Your task to perform on an android device: Open location settings Image 0: 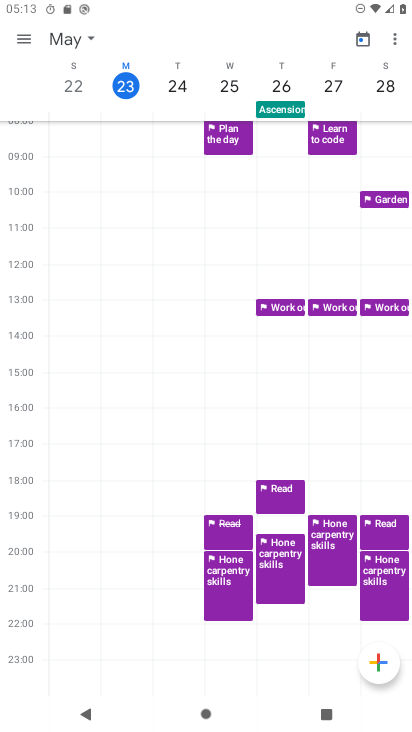
Step 0: press home button
Your task to perform on an android device: Open location settings Image 1: 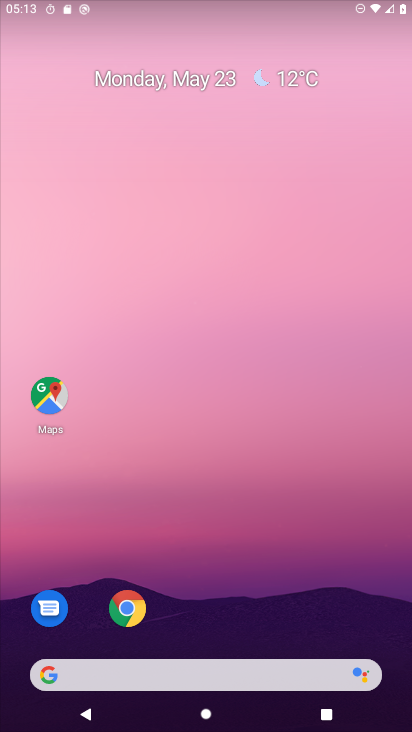
Step 1: drag from (292, 540) to (183, 6)
Your task to perform on an android device: Open location settings Image 2: 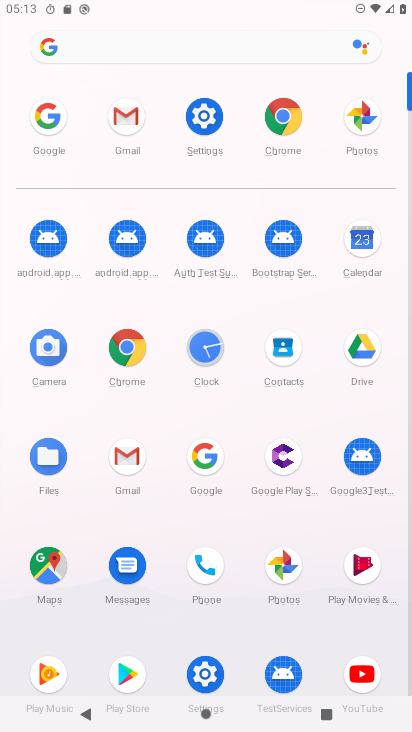
Step 2: click (188, 124)
Your task to perform on an android device: Open location settings Image 3: 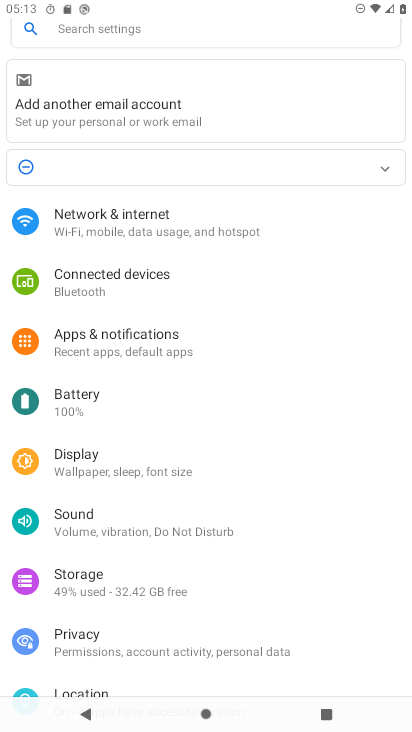
Step 3: click (199, 681)
Your task to perform on an android device: Open location settings Image 4: 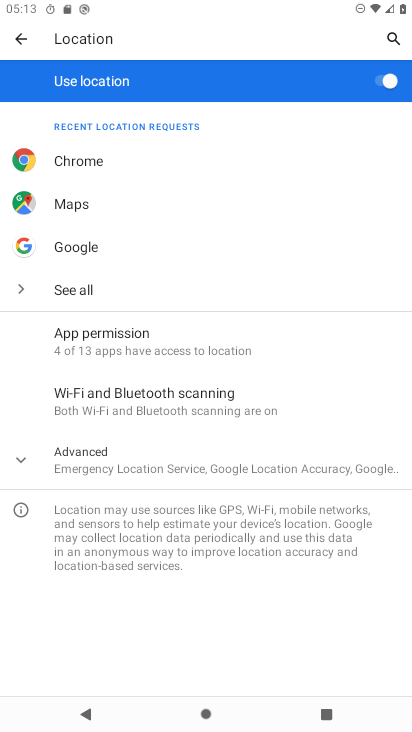
Step 4: task complete